Your task to perform on an android device: toggle sleep mode Image 0: 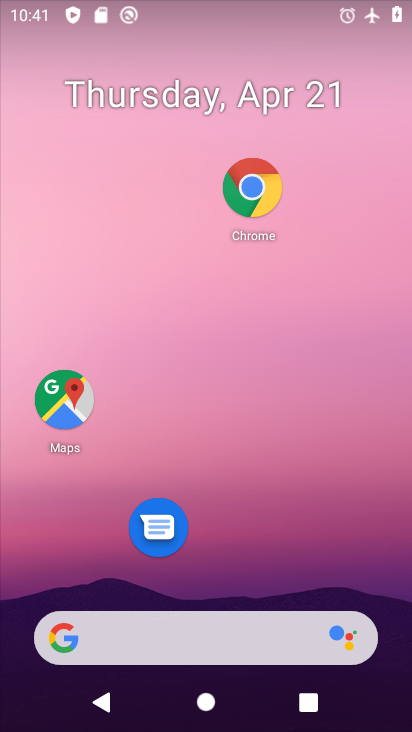
Step 0: drag from (258, 614) to (270, 150)
Your task to perform on an android device: toggle sleep mode Image 1: 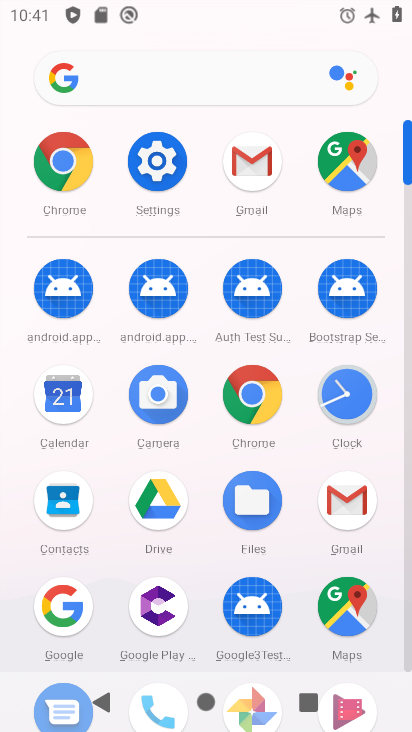
Step 1: click (175, 185)
Your task to perform on an android device: toggle sleep mode Image 2: 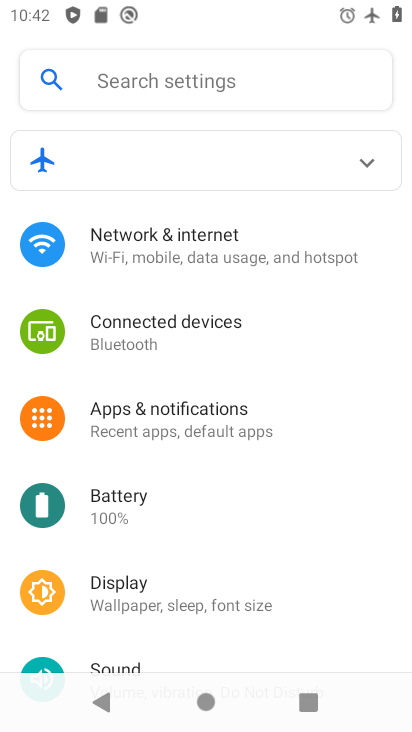
Step 2: drag from (199, 482) to (229, 243)
Your task to perform on an android device: toggle sleep mode Image 3: 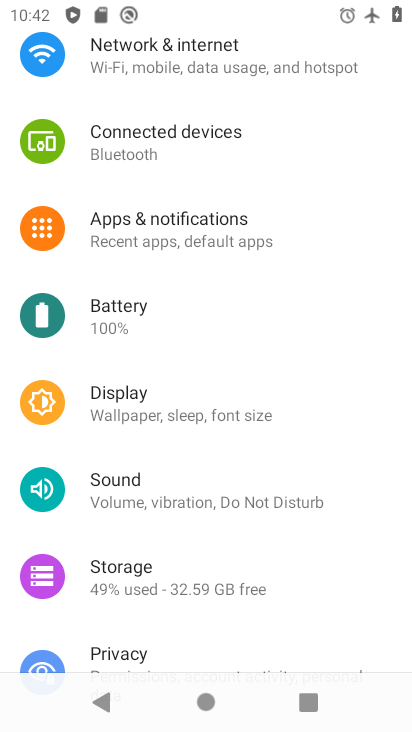
Step 3: drag from (212, 487) to (224, 311)
Your task to perform on an android device: toggle sleep mode Image 4: 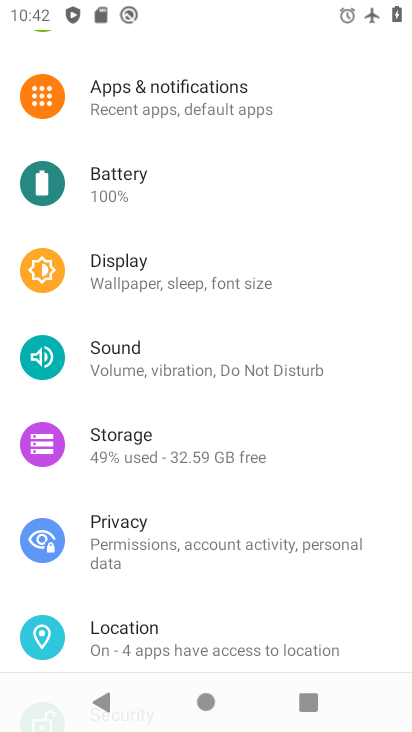
Step 4: click (229, 284)
Your task to perform on an android device: toggle sleep mode Image 5: 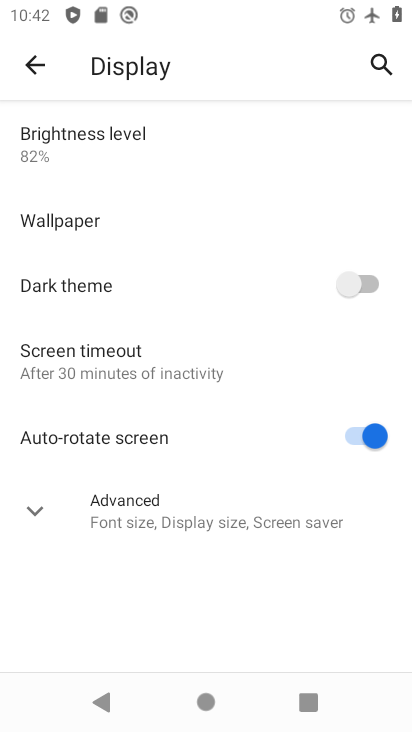
Step 5: click (205, 497)
Your task to perform on an android device: toggle sleep mode Image 6: 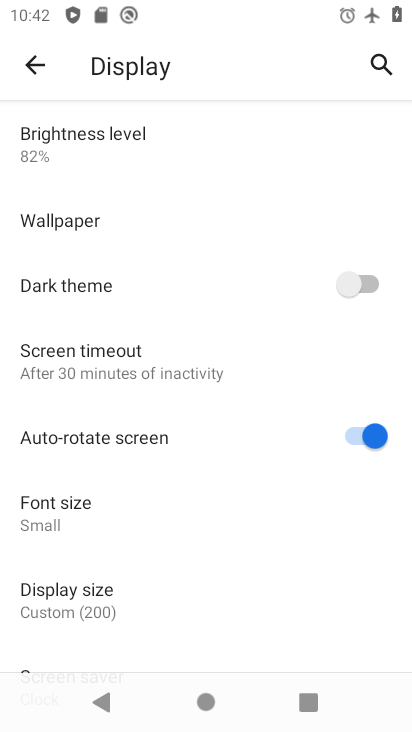
Step 6: task complete